Your task to perform on an android device: Open ESPN.com Image 0: 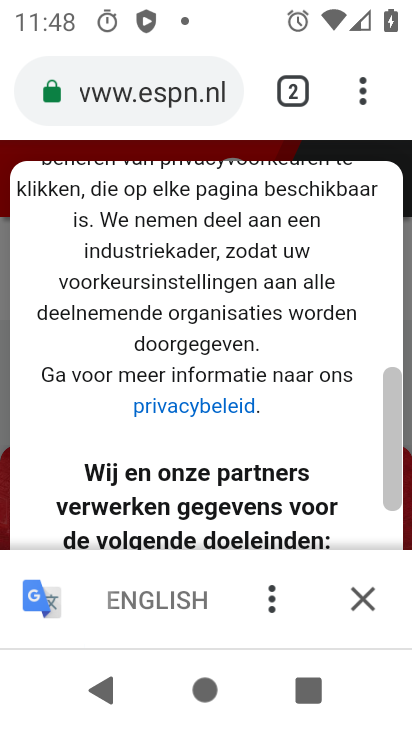
Step 0: press home button
Your task to perform on an android device: Open ESPN.com Image 1: 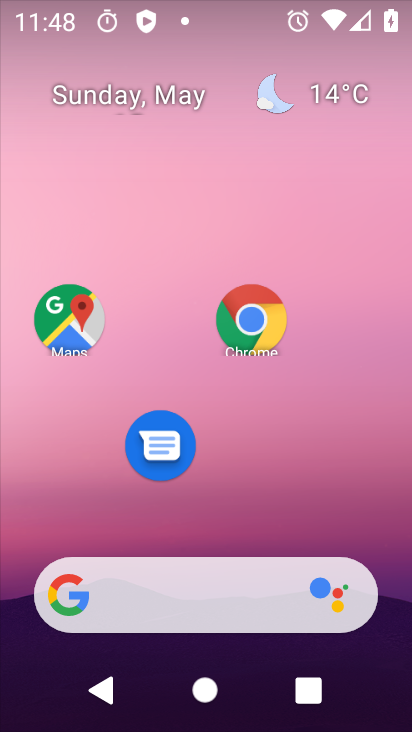
Step 1: click (244, 337)
Your task to perform on an android device: Open ESPN.com Image 2: 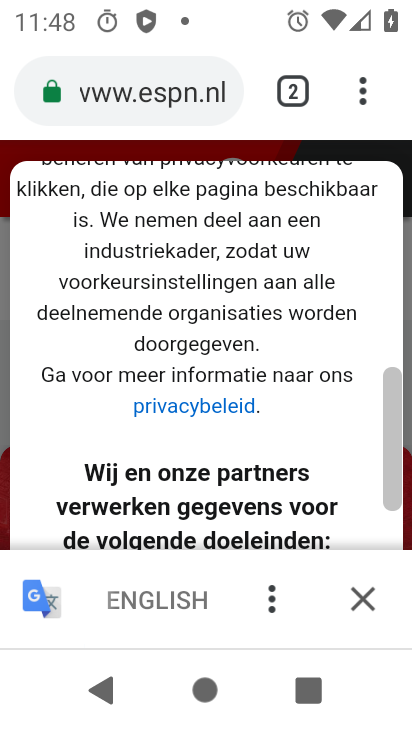
Step 2: drag from (215, 481) to (377, 171)
Your task to perform on an android device: Open ESPN.com Image 3: 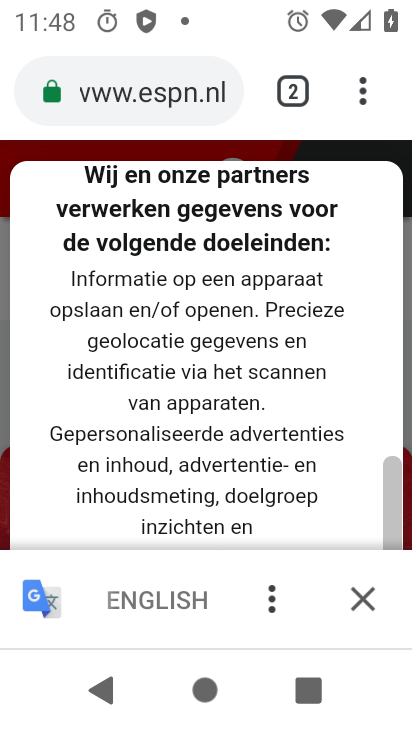
Step 3: drag from (259, 504) to (347, 174)
Your task to perform on an android device: Open ESPN.com Image 4: 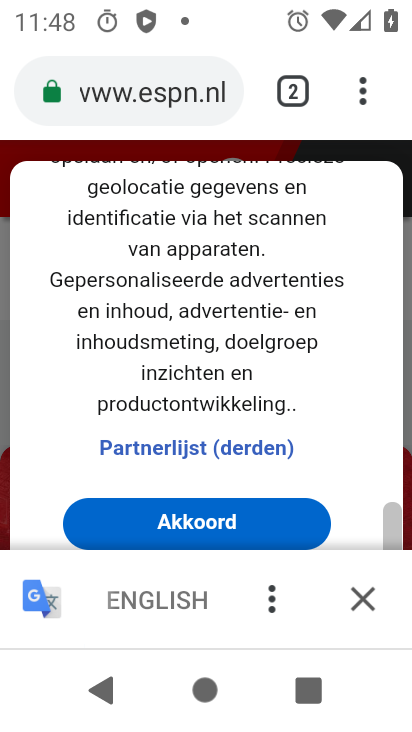
Step 4: click (166, 602)
Your task to perform on an android device: Open ESPN.com Image 5: 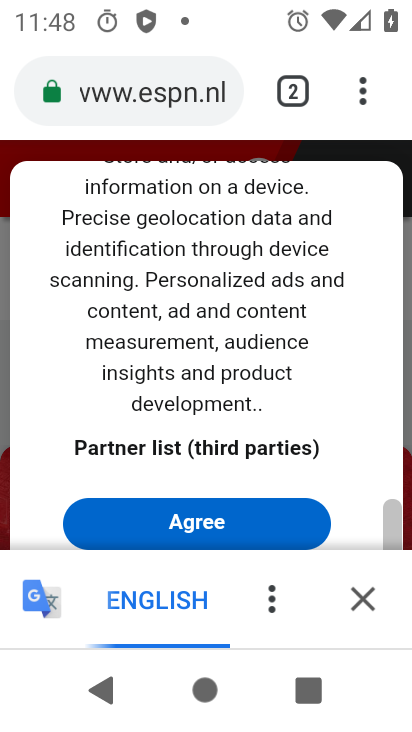
Step 5: click (205, 514)
Your task to perform on an android device: Open ESPN.com Image 6: 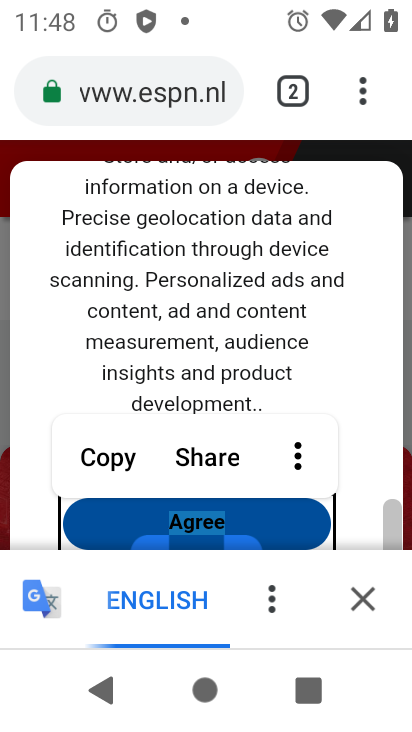
Step 6: click (209, 528)
Your task to perform on an android device: Open ESPN.com Image 7: 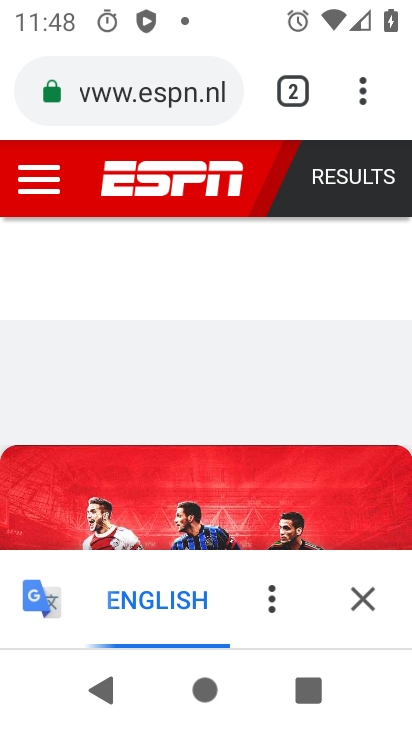
Step 7: task complete